Your task to perform on an android device: change the clock display to digital Image 0: 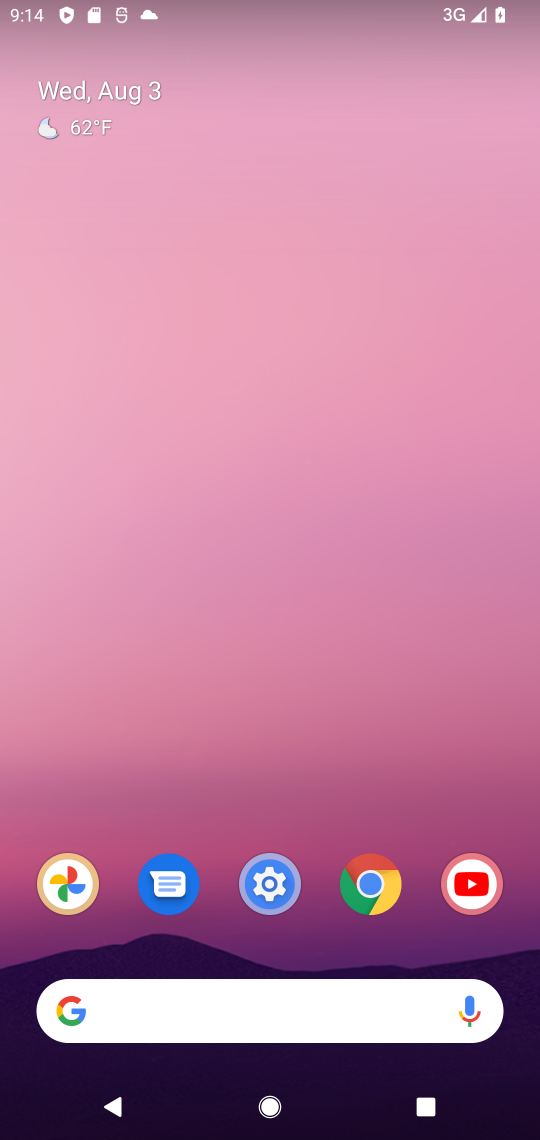
Step 0: drag from (211, 931) to (211, 231)
Your task to perform on an android device: change the clock display to digital Image 1: 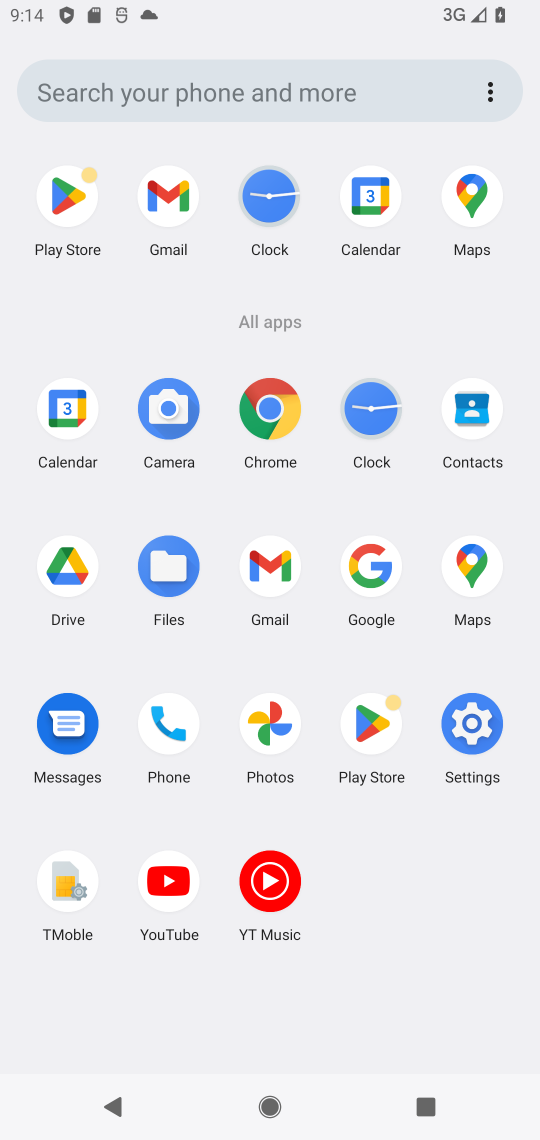
Step 1: click (371, 427)
Your task to perform on an android device: change the clock display to digital Image 2: 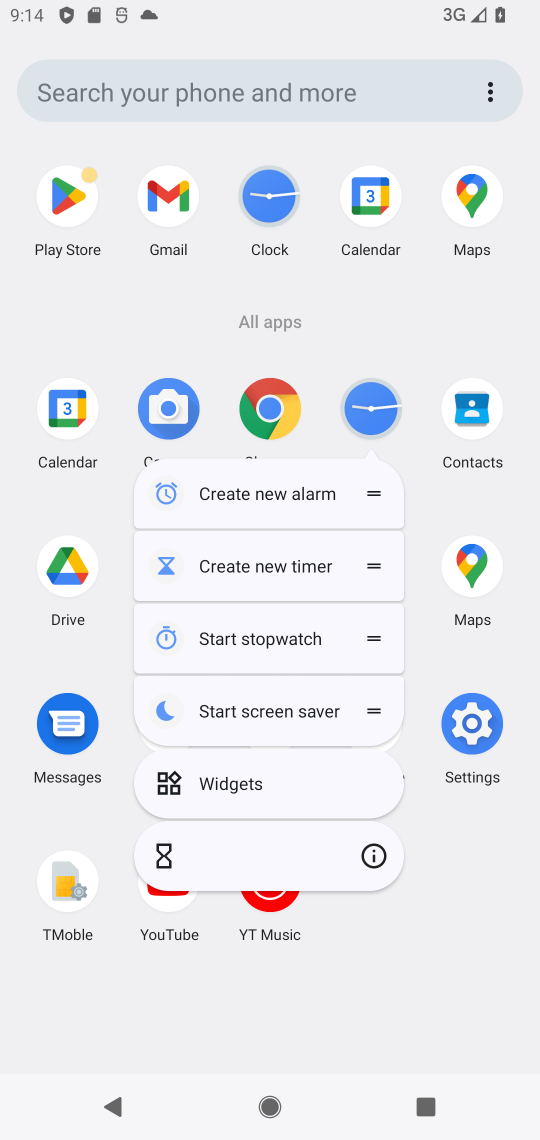
Step 2: click (376, 844)
Your task to perform on an android device: change the clock display to digital Image 3: 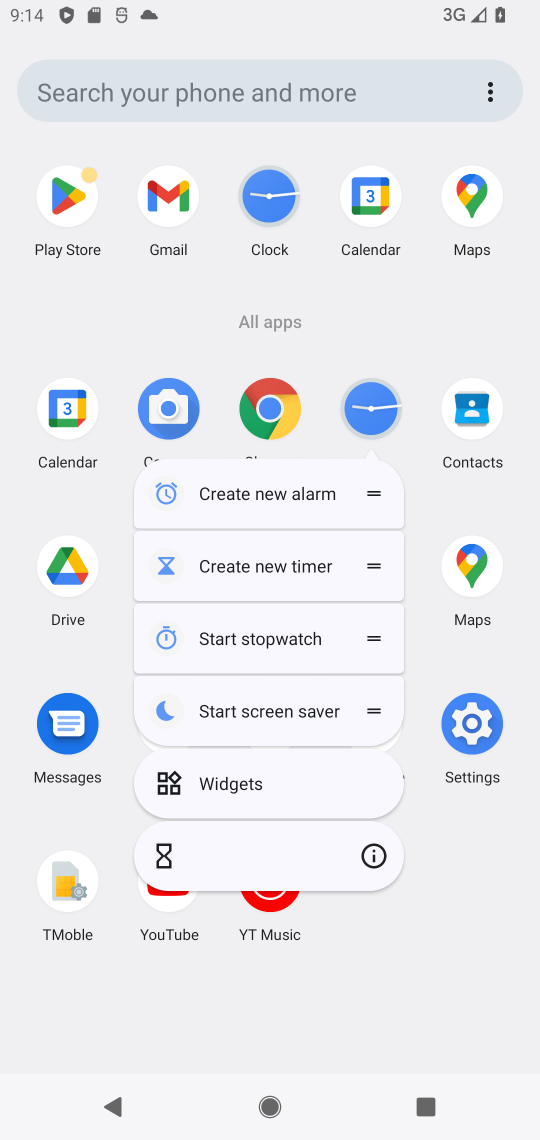
Step 3: click (355, 857)
Your task to perform on an android device: change the clock display to digital Image 4: 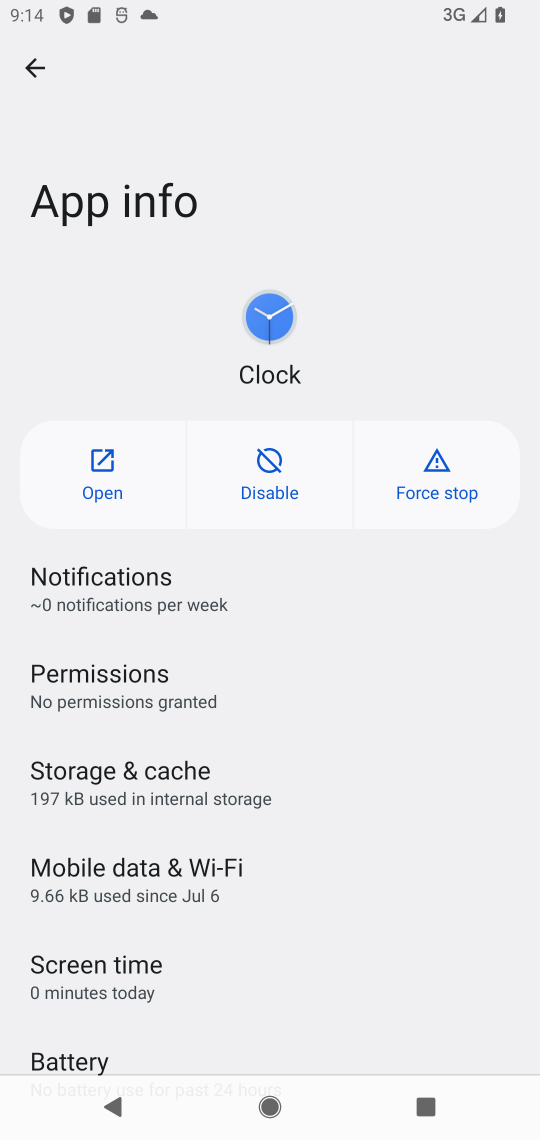
Step 4: click (114, 459)
Your task to perform on an android device: change the clock display to digital Image 5: 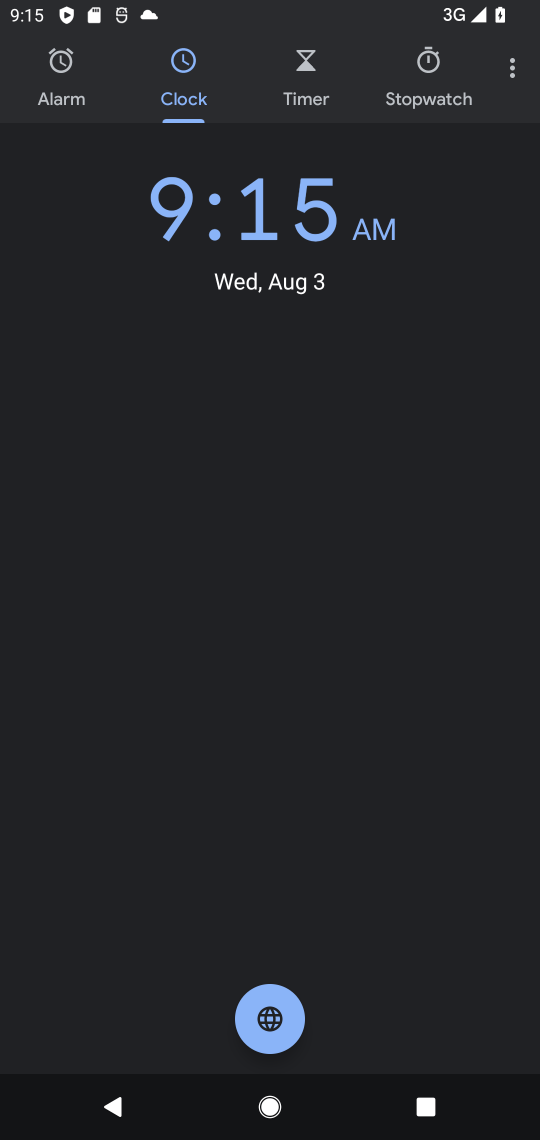
Step 5: drag from (322, 766) to (387, 354)
Your task to perform on an android device: change the clock display to digital Image 6: 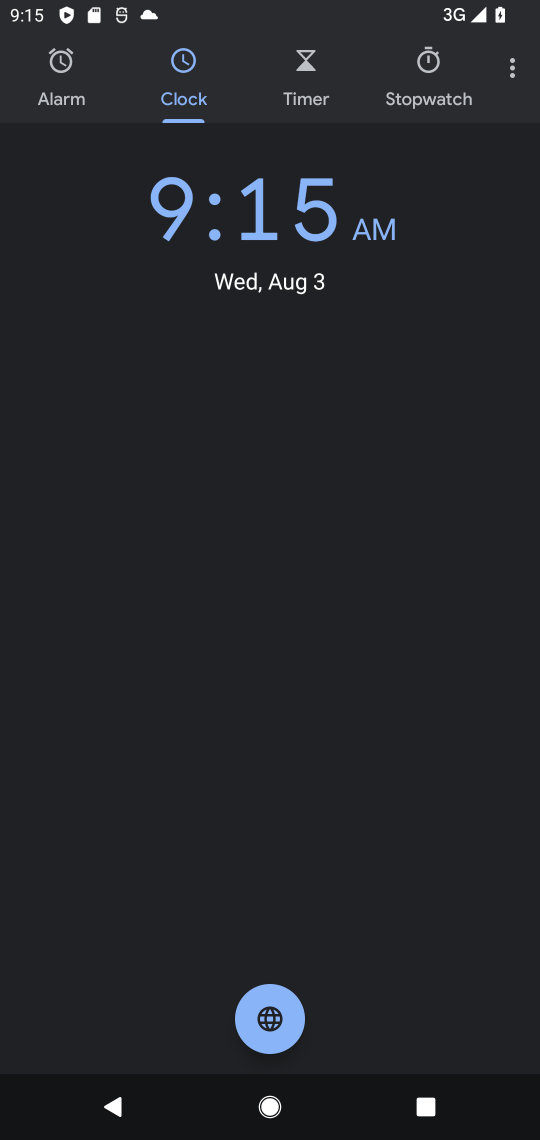
Step 6: click (523, 60)
Your task to perform on an android device: change the clock display to digital Image 7: 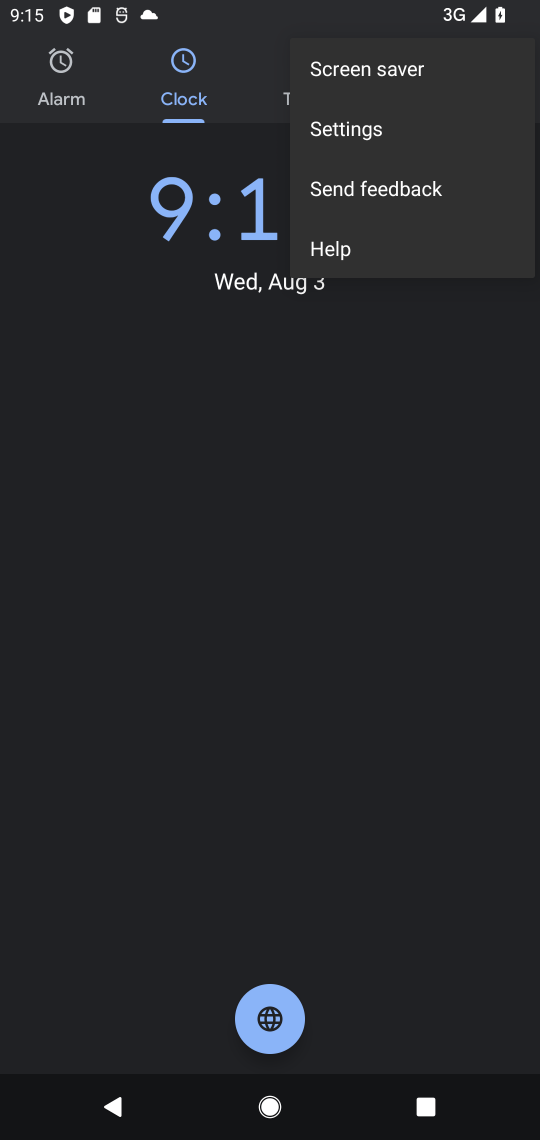
Step 7: click (396, 131)
Your task to perform on an android device: change the clock display to digital Image 8: 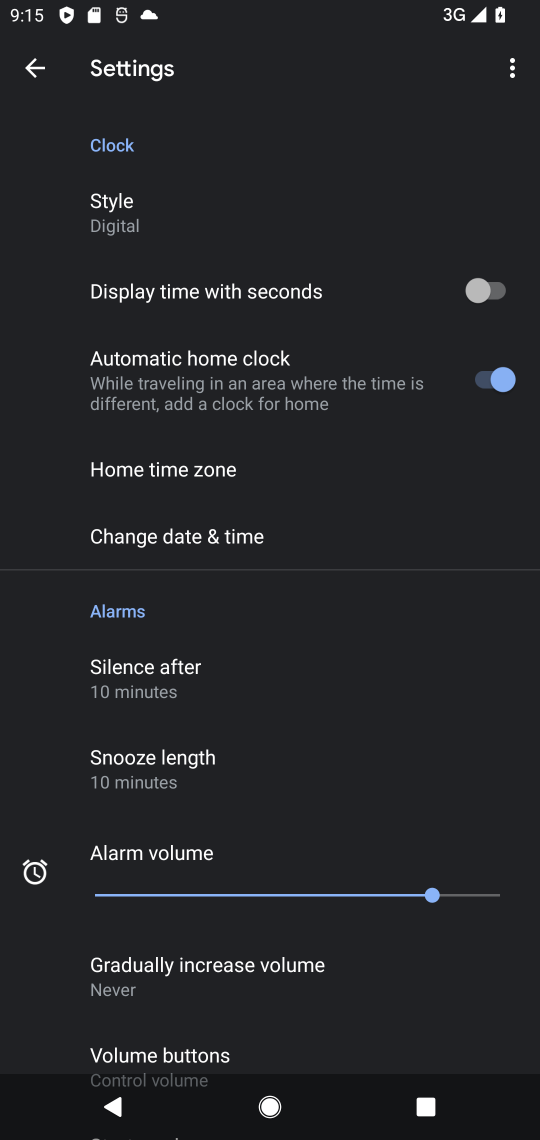
Step 8: drag from (193, 1014) to (322, 247)
Your task to perform on an android device: change the clock display to digital Image 9: 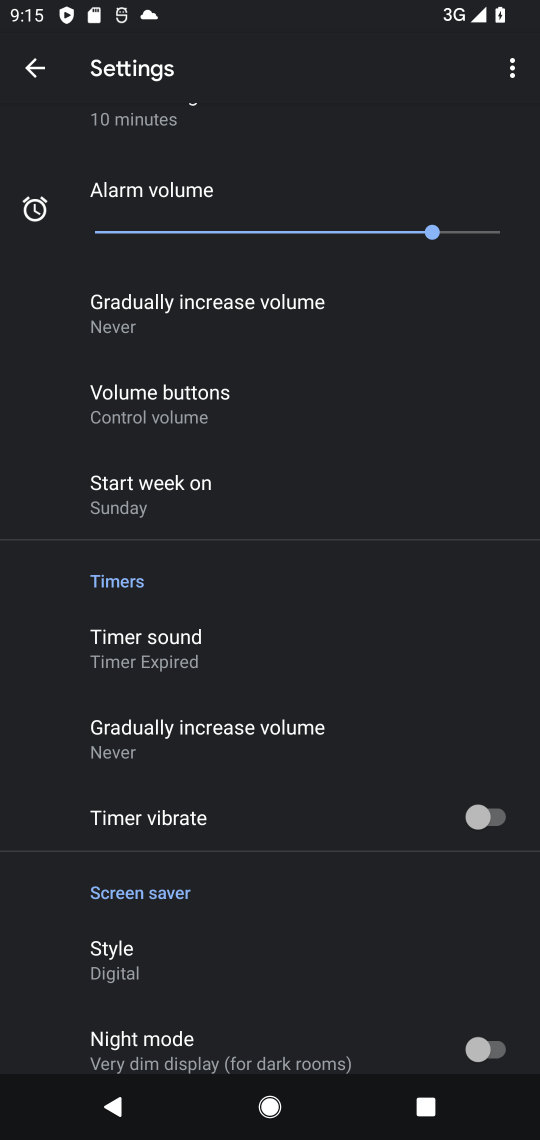
Step 9: drag from (275, 330) to (228, 1055)
Your task to perform on an android device: change the clock display to digital Image 10: 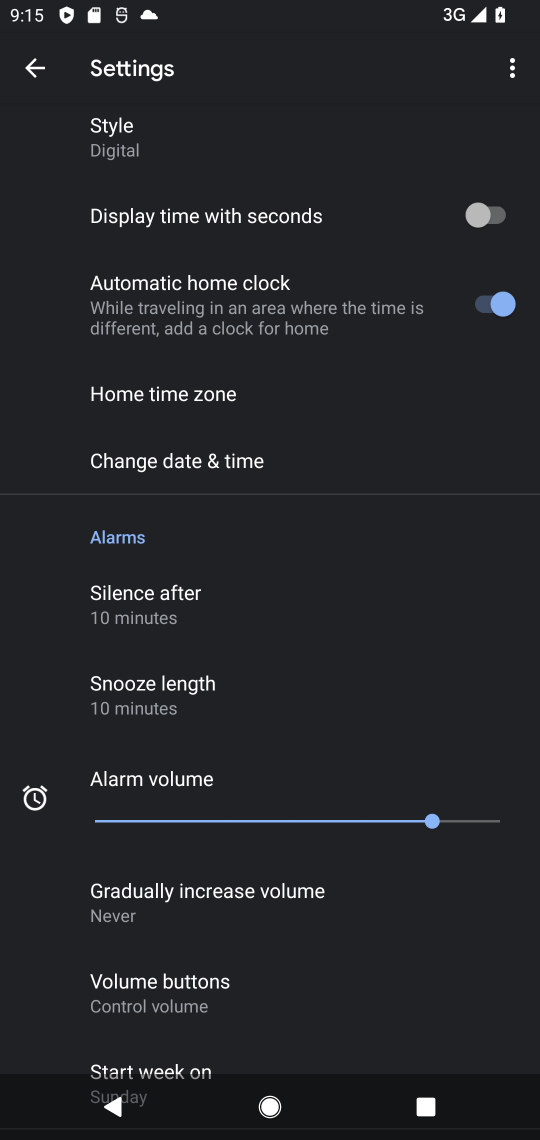
Step 10: drag from (237, 386) to (236, 1130)
Your task to perform on an android device: change the clock display to digital Image 11: 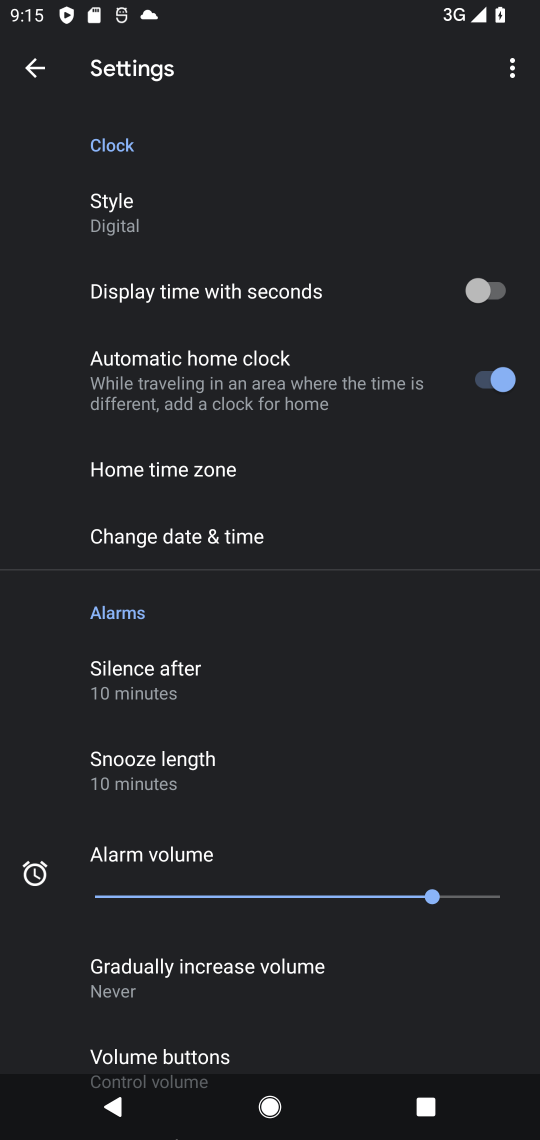
Step 11: click (205, 204)
Your task to perform on an android device: change the clock display to digital Image 12: 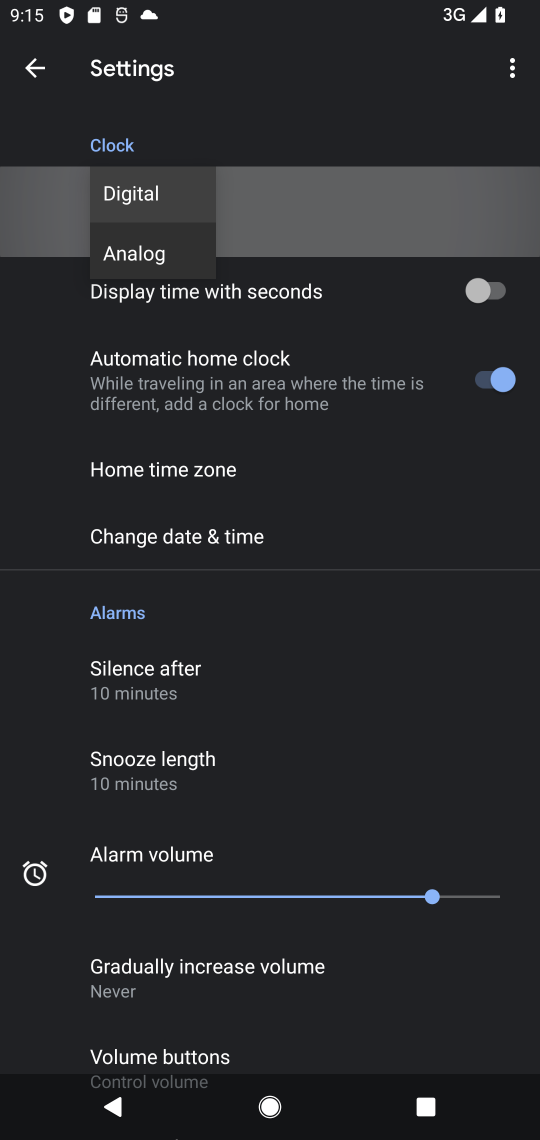
Step 12: task complete